Your task to perform on an android device: set default search engine in the chrome app Image 0: 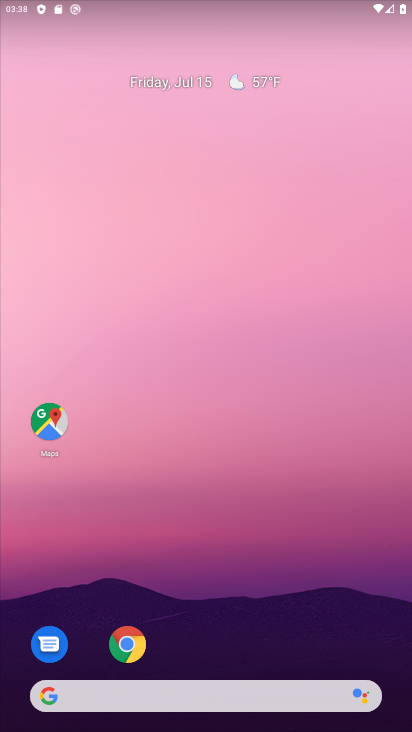
Step 0: click (139, 642)
Your task to perform on an android device: set default search engine in the chrome app Image 1: 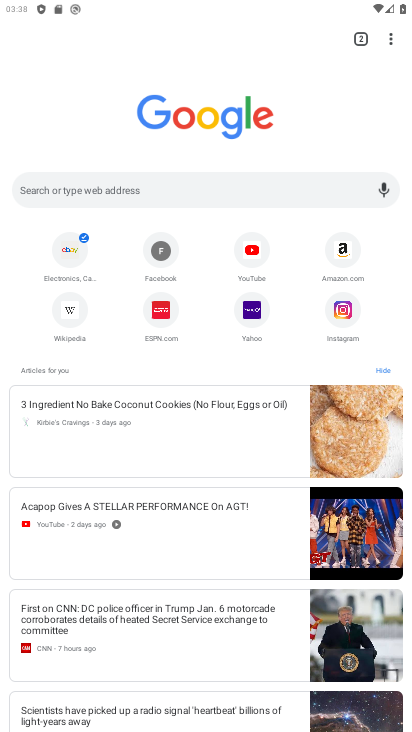
Step 1: click (388, 41)
Your task to perform on an android device: set default search engine in the chrome app Image 2: 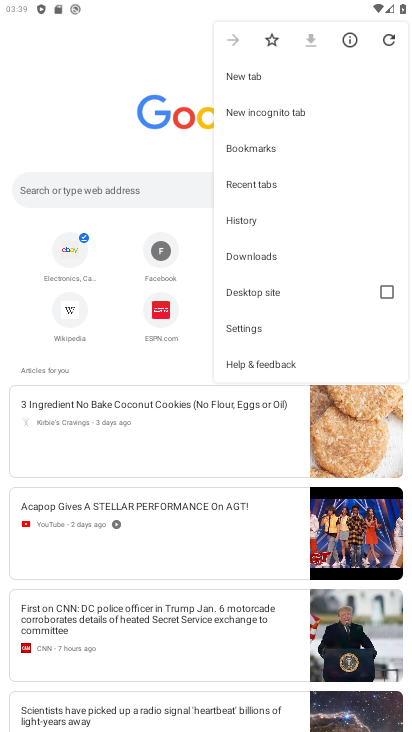
Step 2: click (301, 326)
Your task to perform on an android device: set default search engine in the chrome app Image 3: 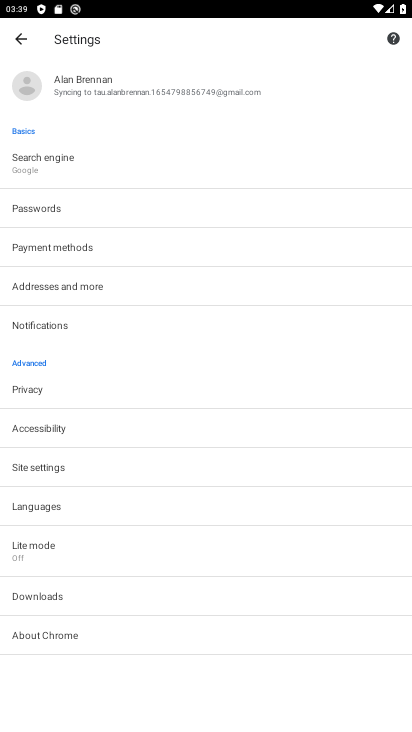
Step 3: click (184, 172)
Your task to perform on an android device: set default search engine in the chrome app Image 4: 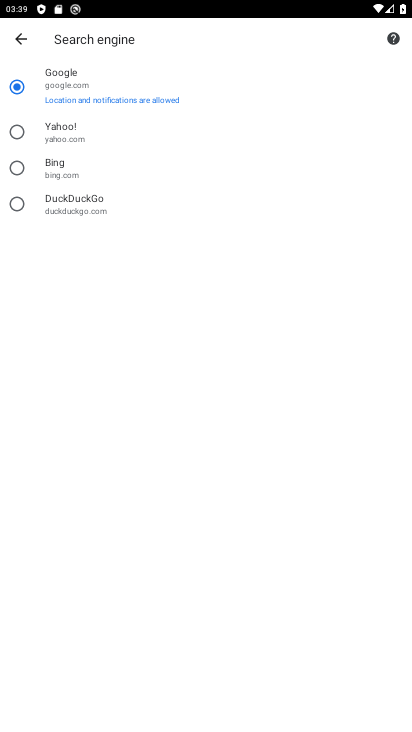
Step 4: click (155, 146)
Your task to perform on an android device: set default search engine in the chrome app Image 5: 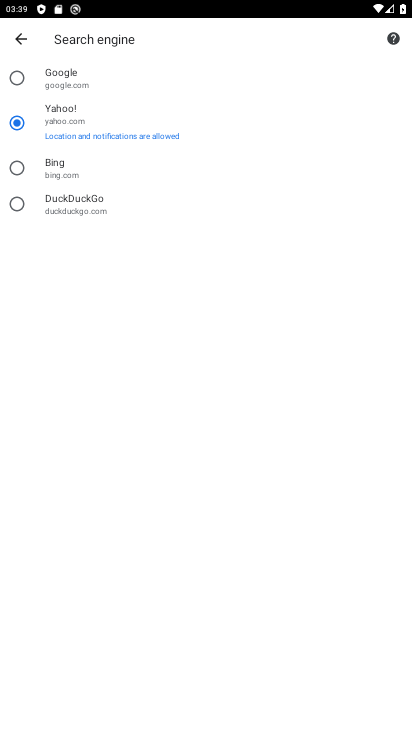
Step 5: task complete